Your task to perform on an android device: delete location history Image 0: 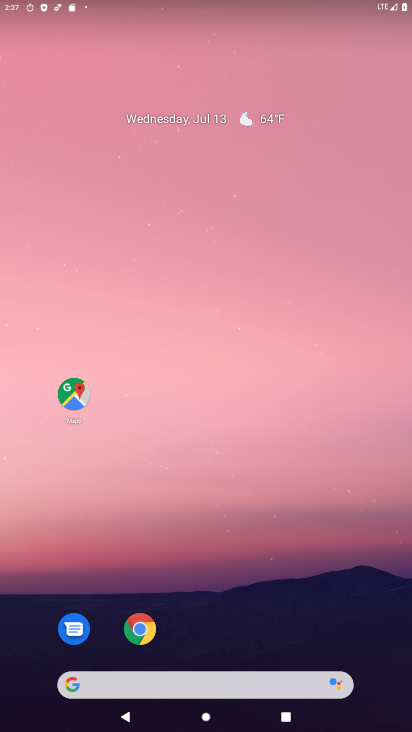
Step 0: drag from (269, 648) to (260, 21)
Your task to perform on an android device: delete location history Image 1: 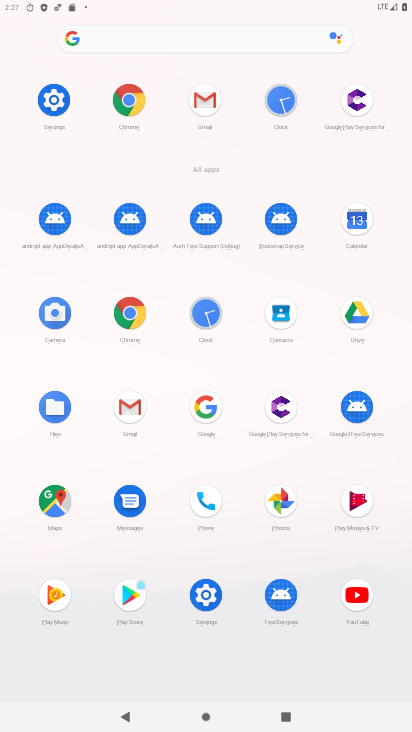
Step 1: click (48, 508)
Your task to perform on an android device: delete location history Image 2: 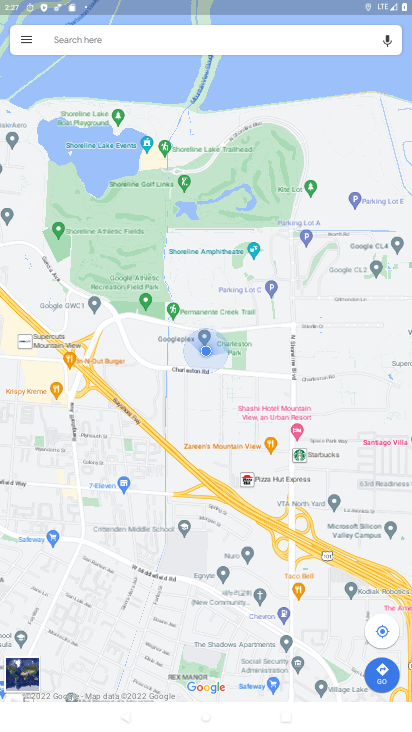
Step 2: click (22, 39)
Your task to perform on an android device: delete location history Image 3: 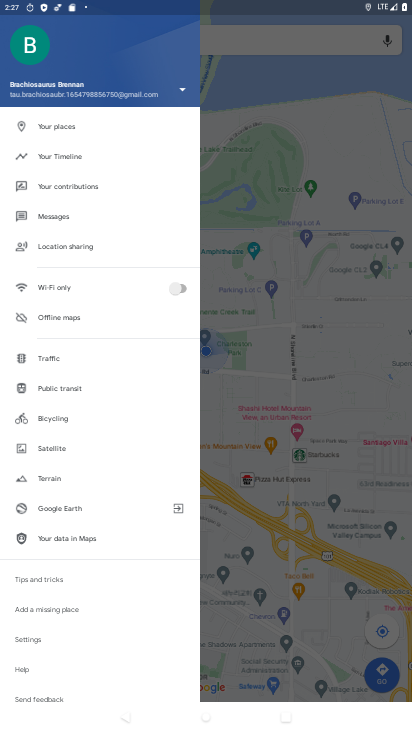
Step 3: click (71, 151)
Your task to perform on an android device: delete location history Image 4: 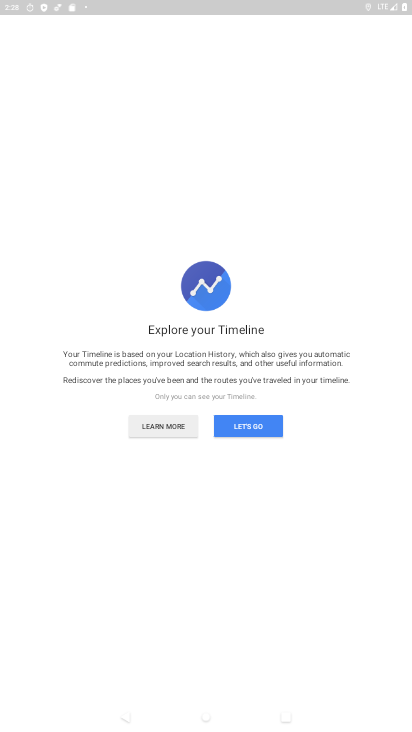
Step 4: click (259, 426)
Your task to perform on an android device: delete location history Image 5: 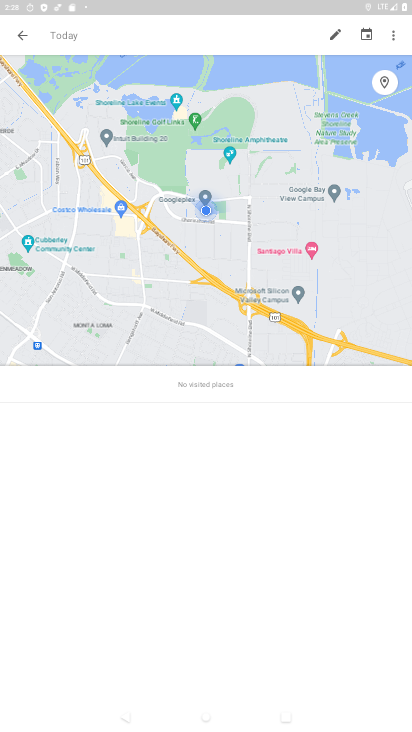
Step 5: drag from (395, 33) to (310, 213)
Your task to perform on an android device: delete location history Image 6: 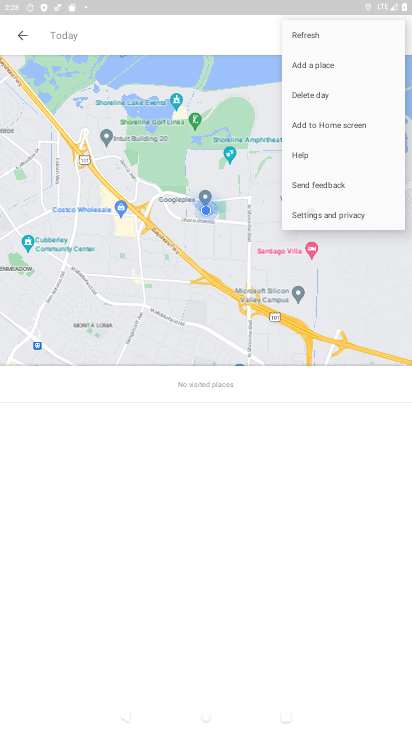
Step 6: click (391, 38)
Your task to perform on an android device: delete location history Image 7: 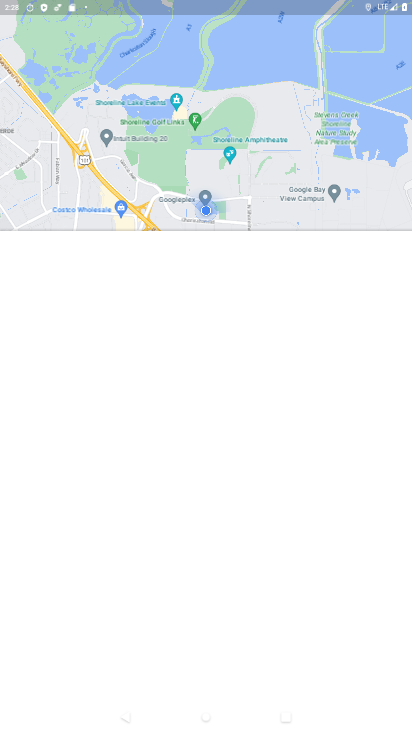
Step 7: click (314, 212)
Your task to perform on an android device: delete location history Image 8: 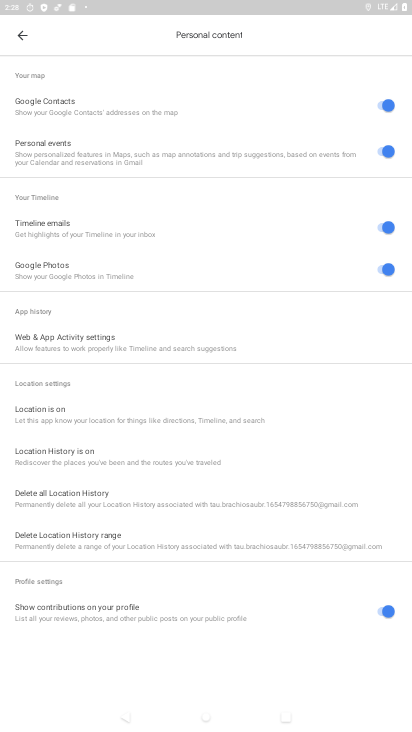
Step 8: click (86, 490)
Your task to perform on an android device: delete location history Image 9: 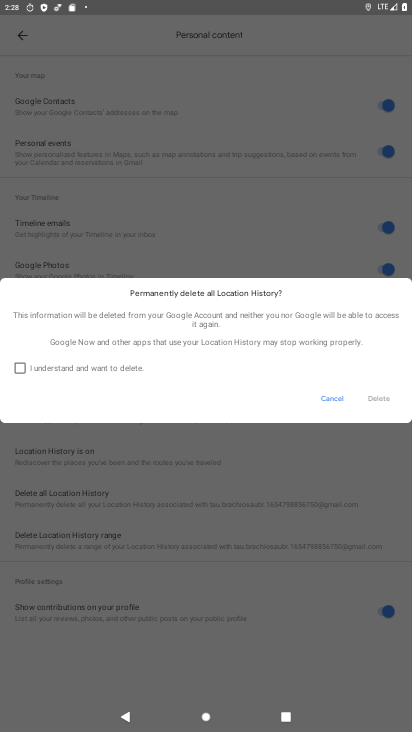
Step 9: click (16, 363)
Your task to perform on an android device: delete location history Image 10: 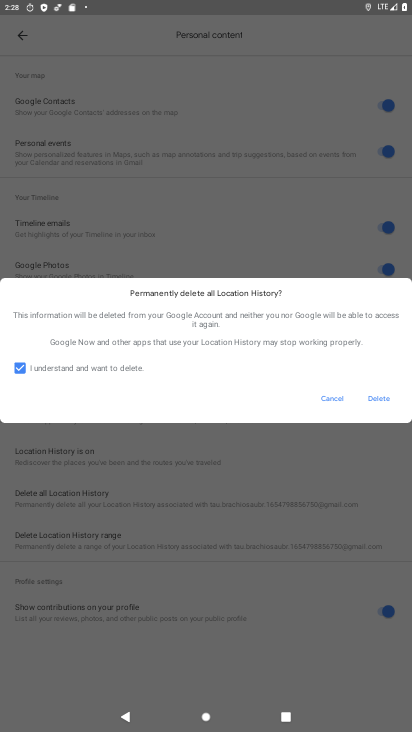
Step 10: click (375, 397)
Your task to perform on an android device: delete location history Image 11: 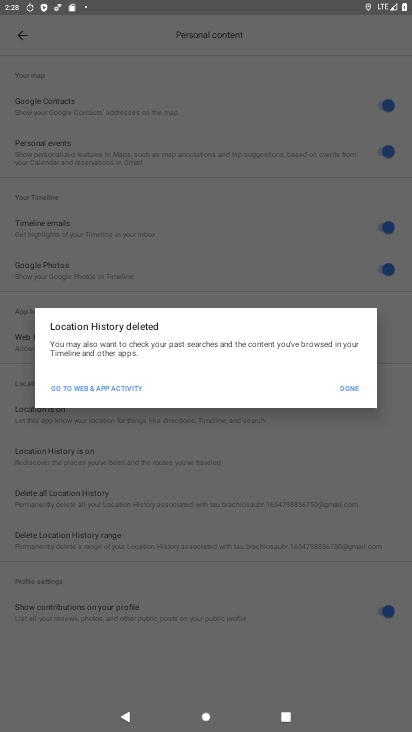
Step 11: task complete